Your task to perform on an android device: Search for "usb-a" on target.com, select the first entry, add it to the cart, then select checkout. Image 0: 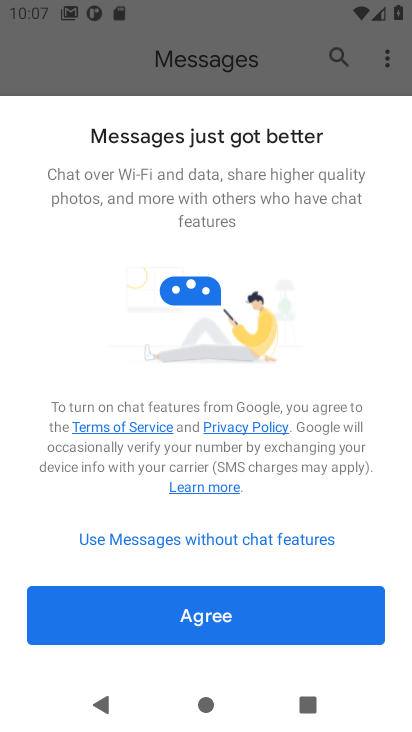
Step 0: press home button
Your task to perform on an android device: Search for "usb-a" on target.com, select the first entry, add it to the cart, then select checkout. Image 1: 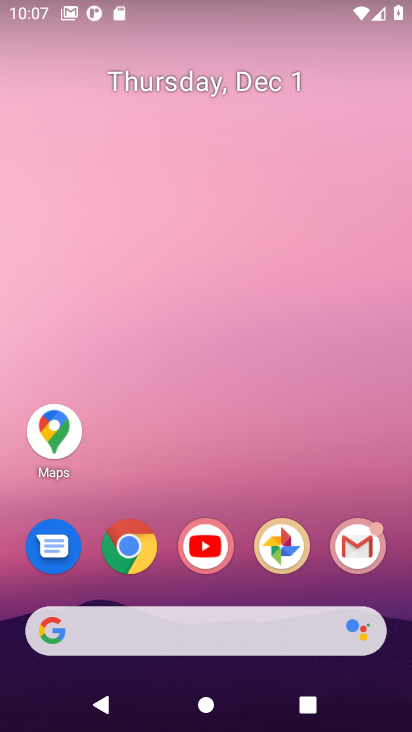
Step 1: click (128, 541)
Your task to perform on an android device: Search for "usb-a" on target.com, select the first entry, add it to the cart, then select checkout. Image 2: 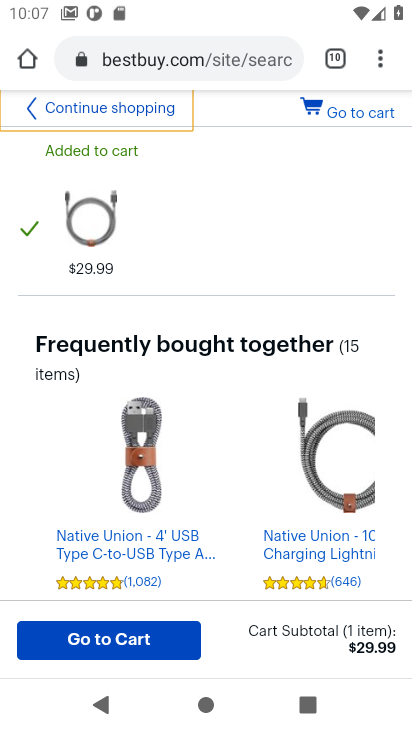
Step 2: click (174, 61)
Your task to perform on an android device: Search for "usb-a" on target.com, select the first entry, add it to the cart, then select checkout. Image 3: 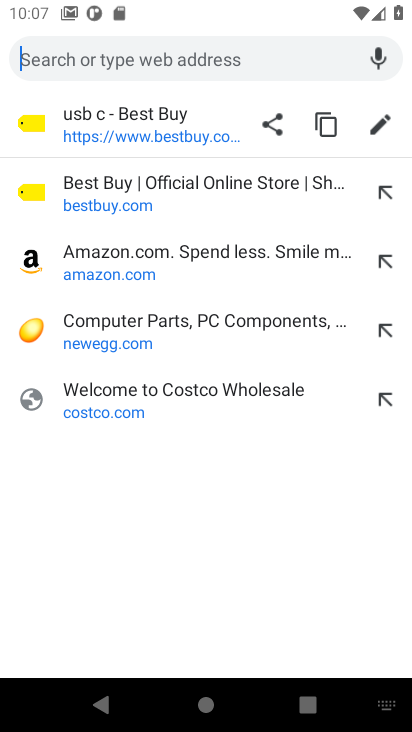
Step 3: type "target.com"
Your task to perform on an android device: Search for "usb-a" on target.com, select the first entry, add it to the cart, then select checkout. Image 4: 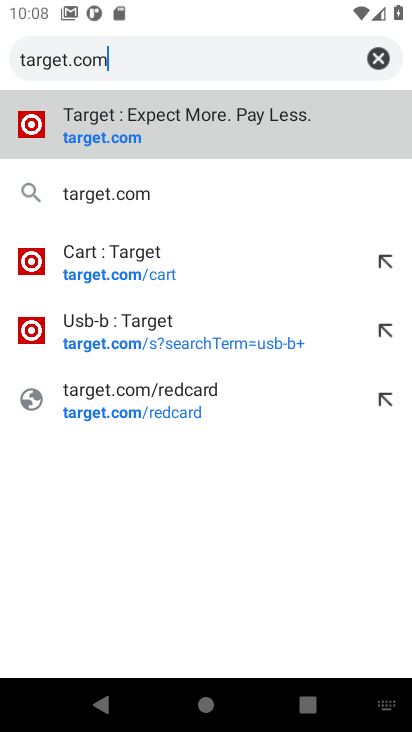
Step 4: click (83, 134)
Your task to perform on an android device: Search for "usb-a" on target.com, select the first entry, add it to the cart, then select checkout. Image 5: 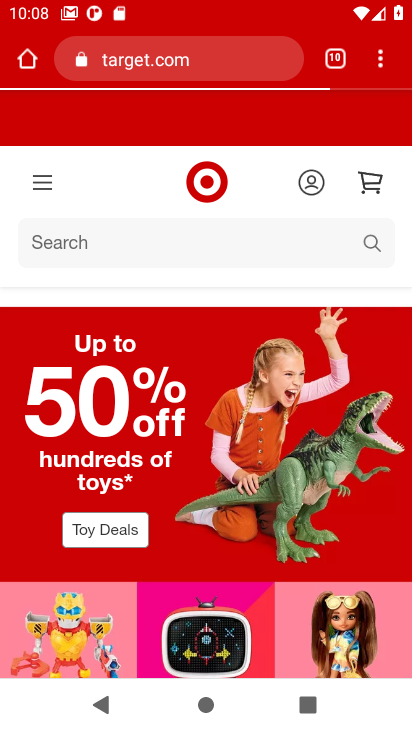
Step 5: click (61, 241)
Your task to perform on an android device: Search for "usb-a" on target.com, select the first entry, add it to the cart, then select checkout. Image 6: 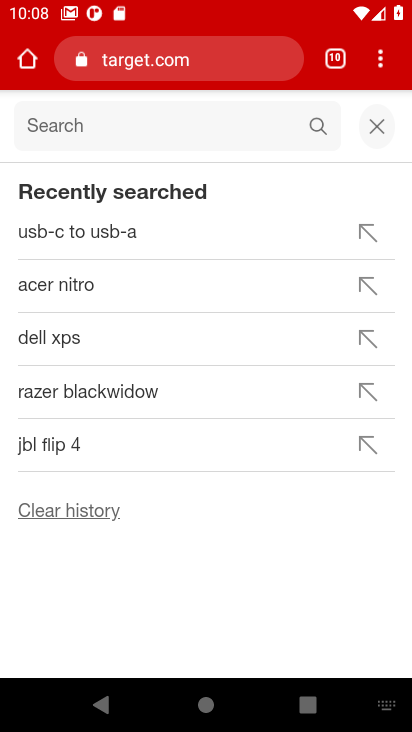
Step 6: type "usb-a"
Your task to perform on an android device: Search for "usb-a" on target.com, select the first entry, add it to the cart, then select checkout. Image 7: 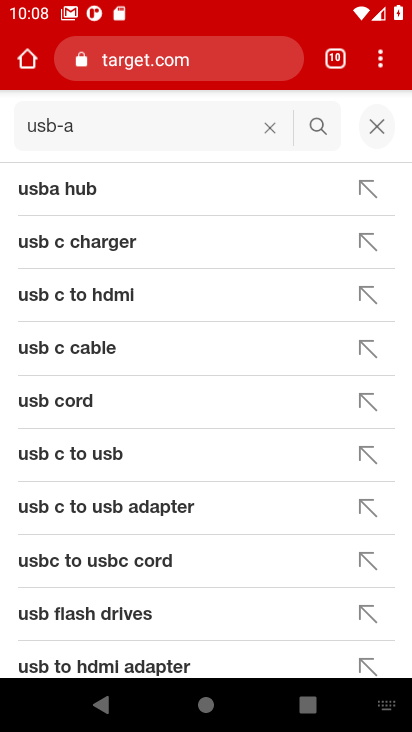
Step 7: click (314, 126)
Your task to perform on an android device: Search for "usb-a" on target.com, select the first entry, add it to the cart, then select checkout. Image 8: 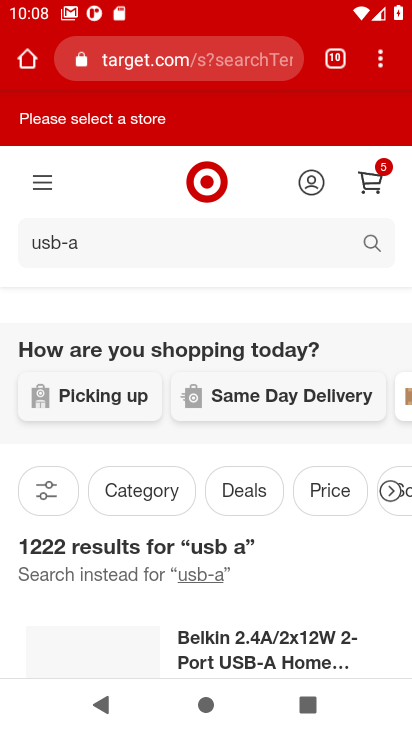
Step 8: drag from (202, 500) to (204, 236)
Your task to perform on an android device: Search for "usb-a" on target.com, select the first entry, add it to the cart, then select checkout. Image 9: 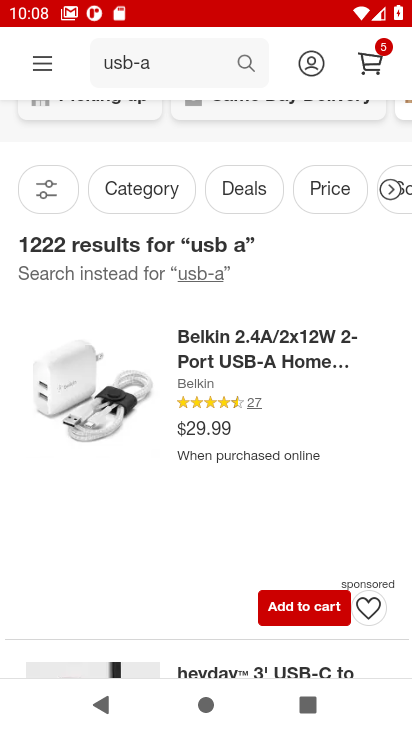
Step 9: click (280, 608)
Your task to perform on an android device: Search for "usb-a" on target.com, select the first entry, add it to the cart, then select checkout. Image 10: 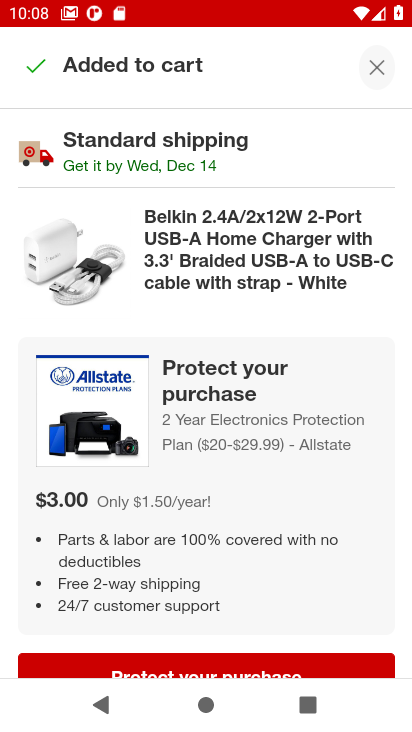
Step 10: click (377, 67)
Your task to perform on an android device: Search for "usb-a" on target.com, select the first entry, add it to the cart, then select checkout. Image 11: 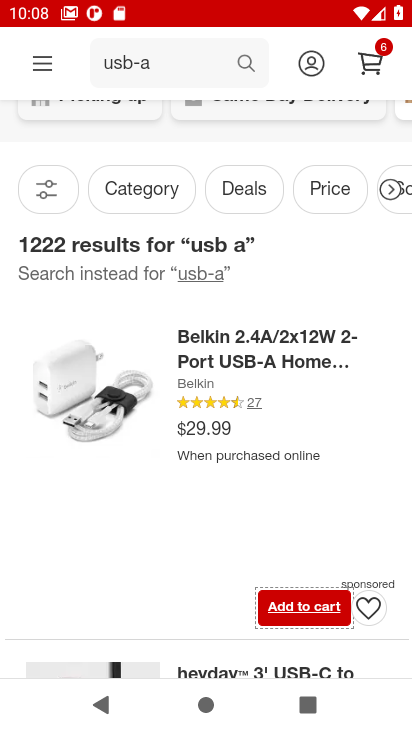
Step 11: click (374, 65)
Your task to perform on an android device: Search for "usb-a" on target.com, select the first entry, add it to the cart, then select checkout. Image 12: 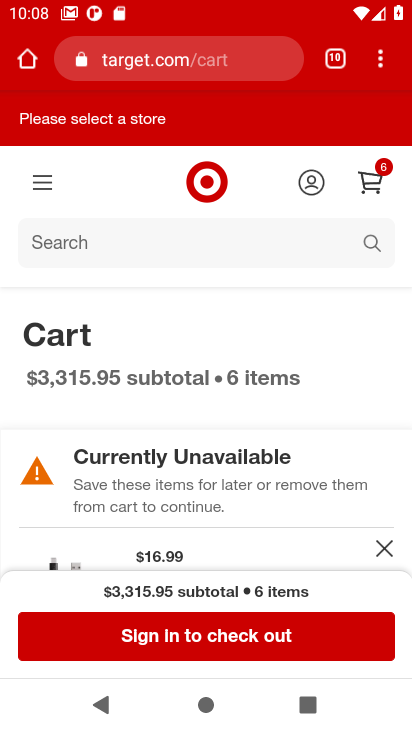
Step 12: click (218, 635)
Your task to perform on an android device: Search for "usb-a" on target.com, select the first entry, add it to the cart, then select checkout. Image 13: 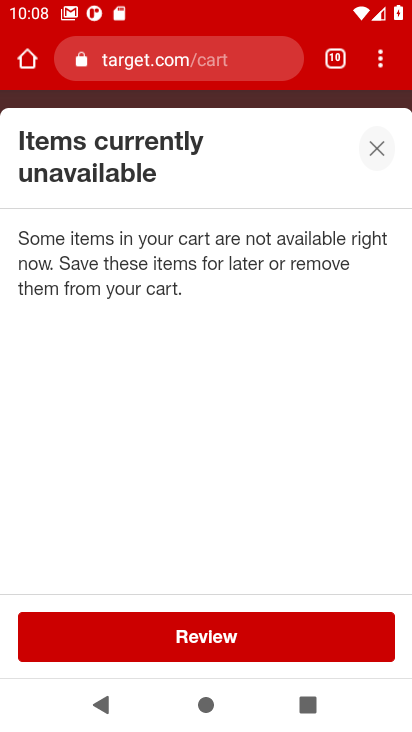
Step 13: task complete